Your task to perform on an android device: Do I have any events tomorrow? Image 0: 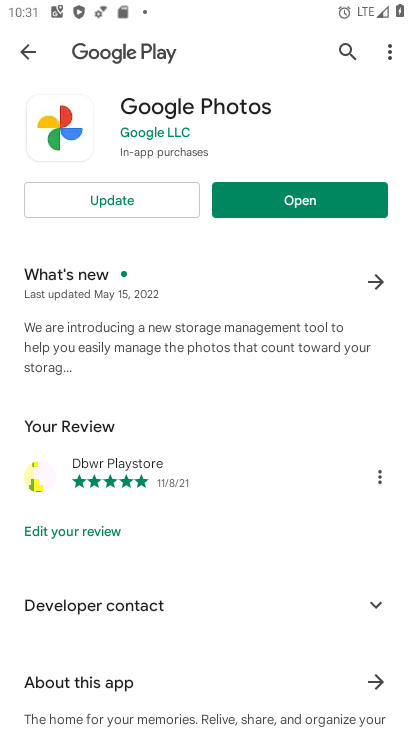
Step 0: press home button
Your task to perform on an android device: Do I have any events tomorrow? Image 1: 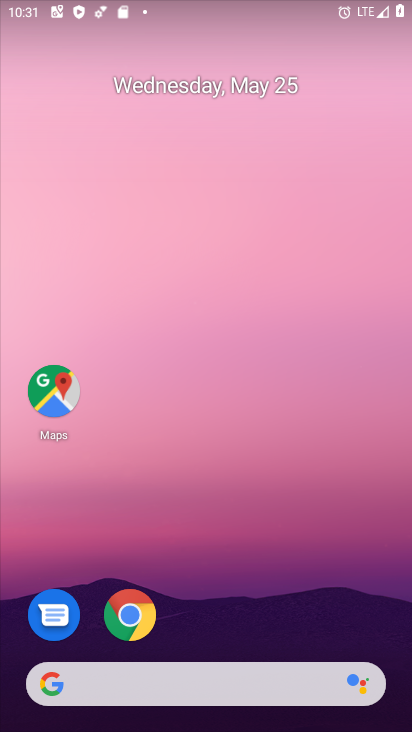
Step 1: drag from (239, 486) to (274, 64)
Your task to perform on an android device: Do I have any events tomorrow? Image 2: 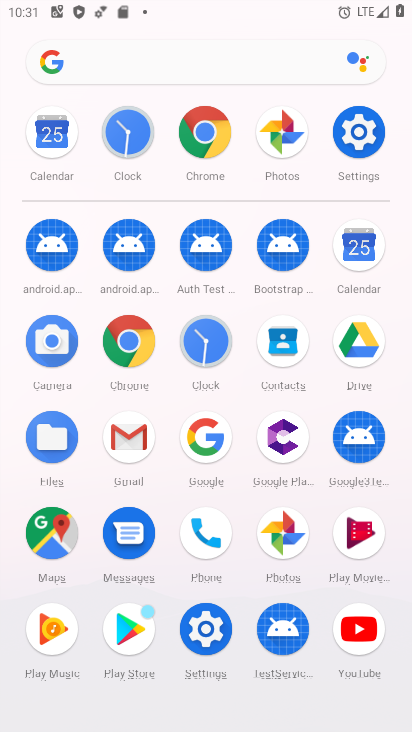
Step 2: click (354, 246)
Your task to perform on an android device: Do I have any events tomorrow? Image 3: 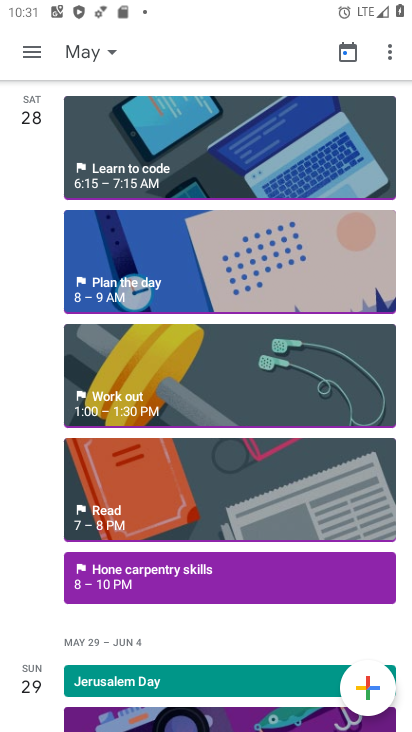
Step 3: task complete